Your task to perform on an android device: turn off location Image 0: 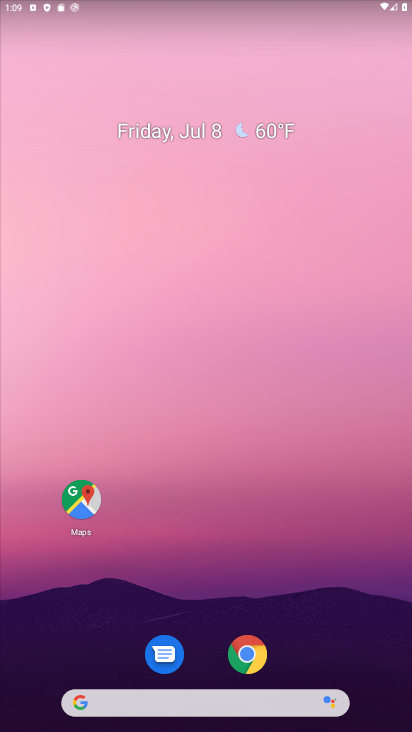
Step 0: drag from (266, 7) to (240, 553)
Your task to perform on an android device: turn off location Image 1: 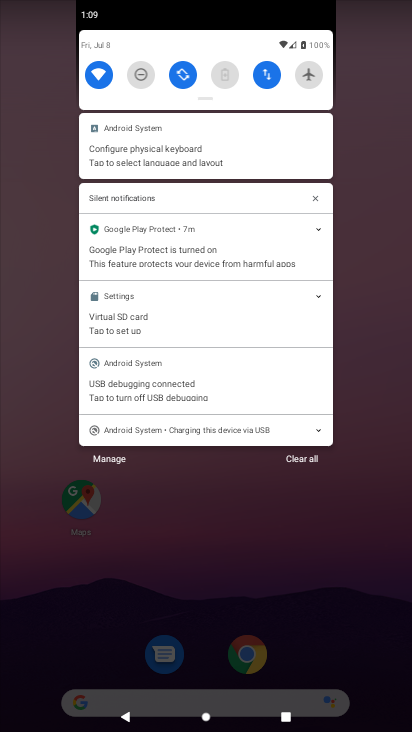
Step 1: drag from (242, 50) to (192, 462)
Your task to perform on an android device: turn off location Image 2: 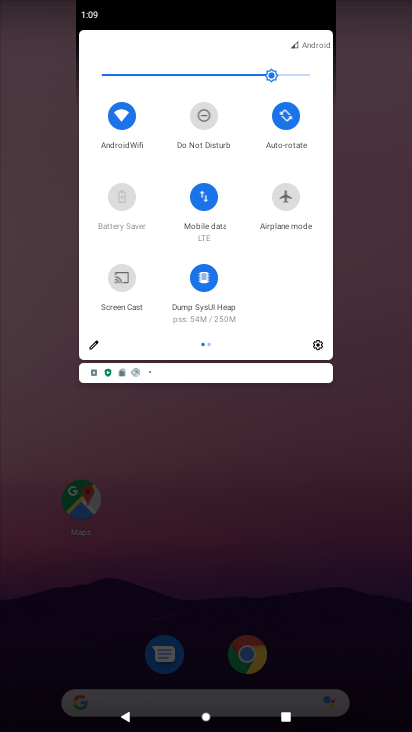
Step 2: click (319, 342)
Your task to perform on an android device: turn off location Image 3: 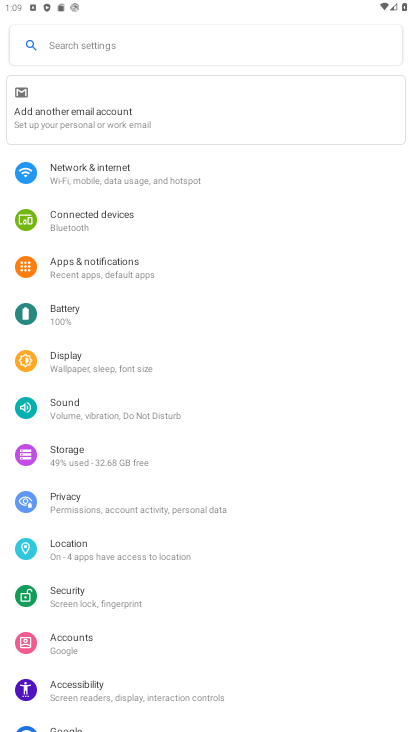
Step 3: click (64, 559)
Your task to perform on an android device: turn off location Image 4: 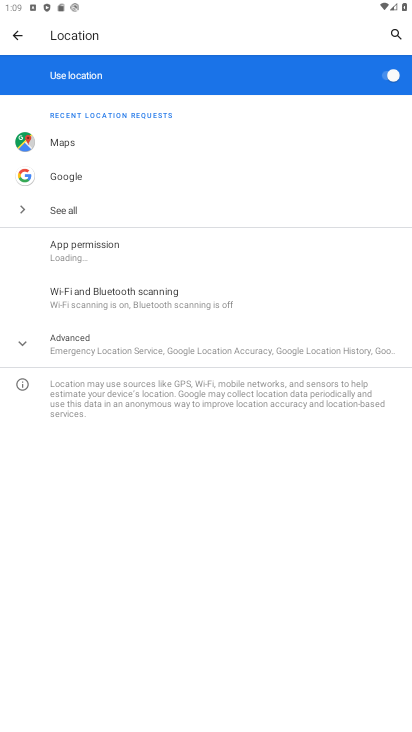
Step 4: click (397, 81)
Your task to perform on an android device: turn off location Image 5: 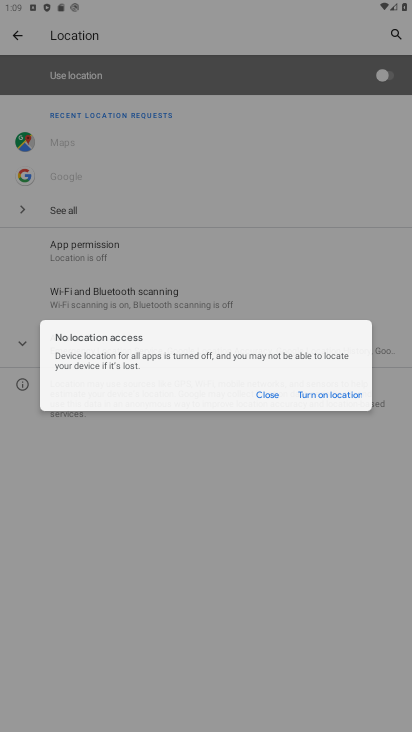
Step 5: task complete